Your task to perform on an android device: What's the news in Trinidad and Tobago? Image 0: 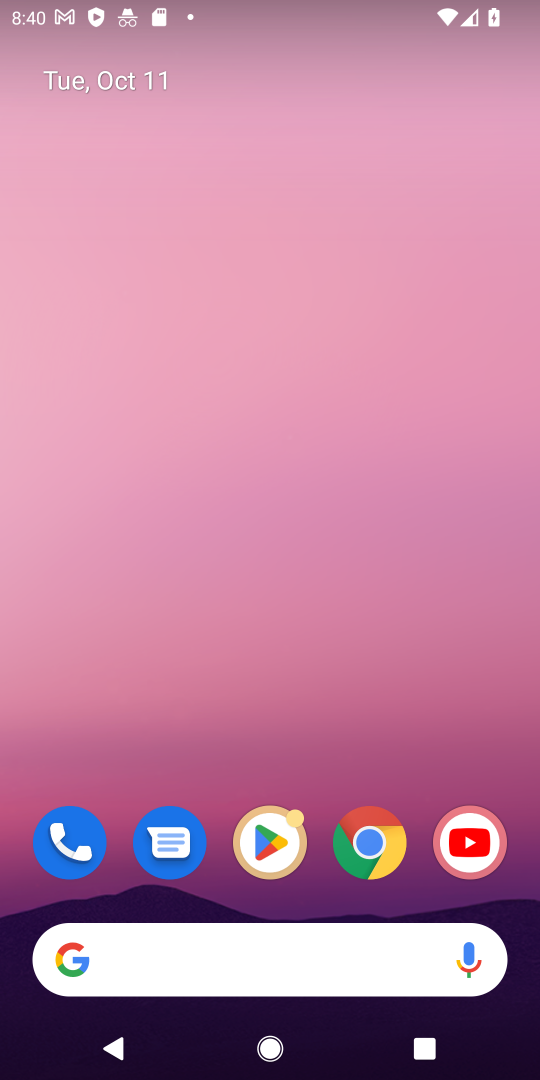
Step 0: drag from (210, 651) to (222, 94)
Your task to perform on an android device: What's the news in Trinidad and Tobago? Image 1: 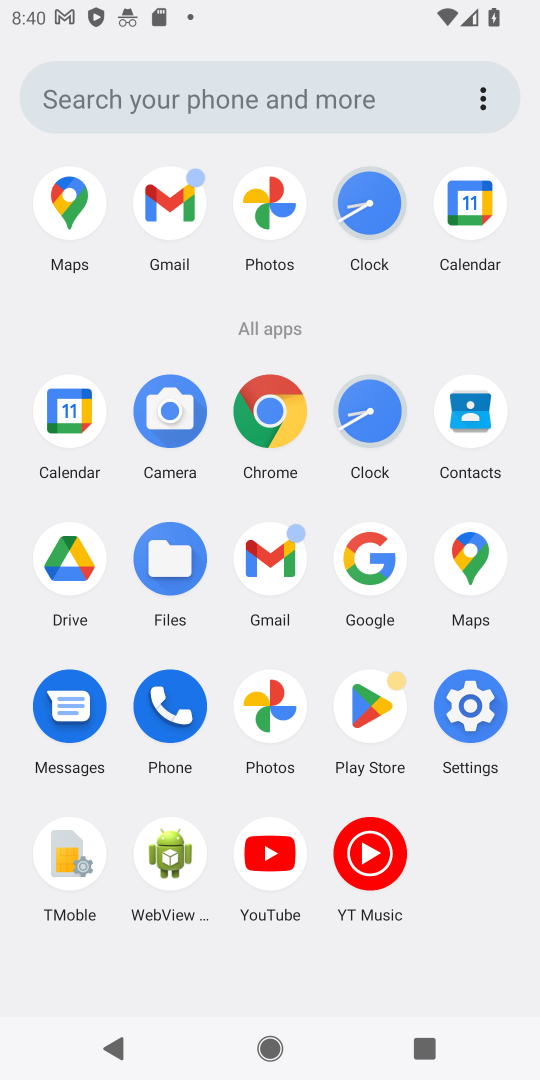
Step 1: click (366, 564)
Your task to perform on an android device: What's the news in Trinidad and Tobago? Image 2: 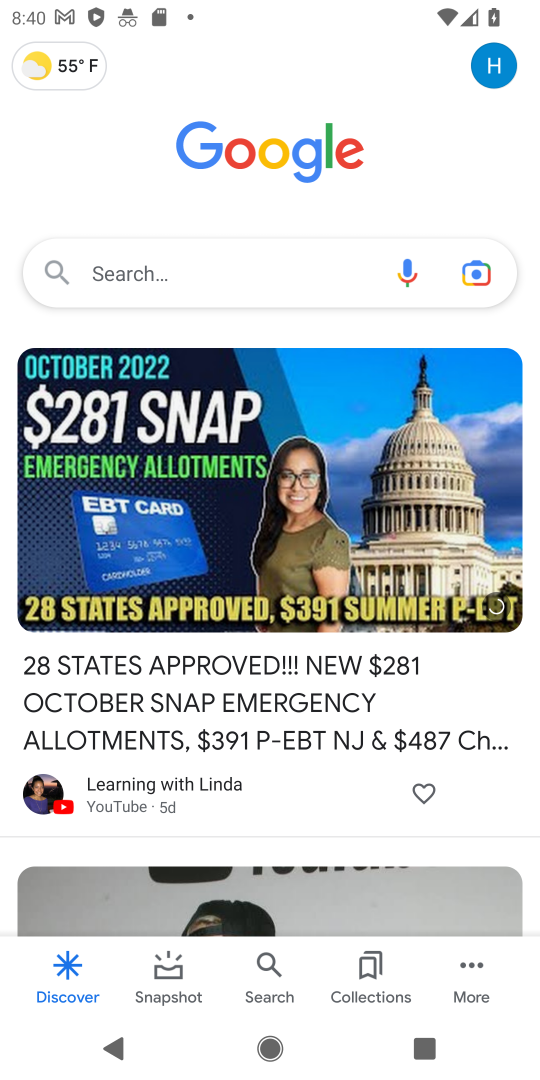
Step 2: click (282, 287)
Your task to perform on an android device: What's the news in Trinidad and Tobago? Image 3: 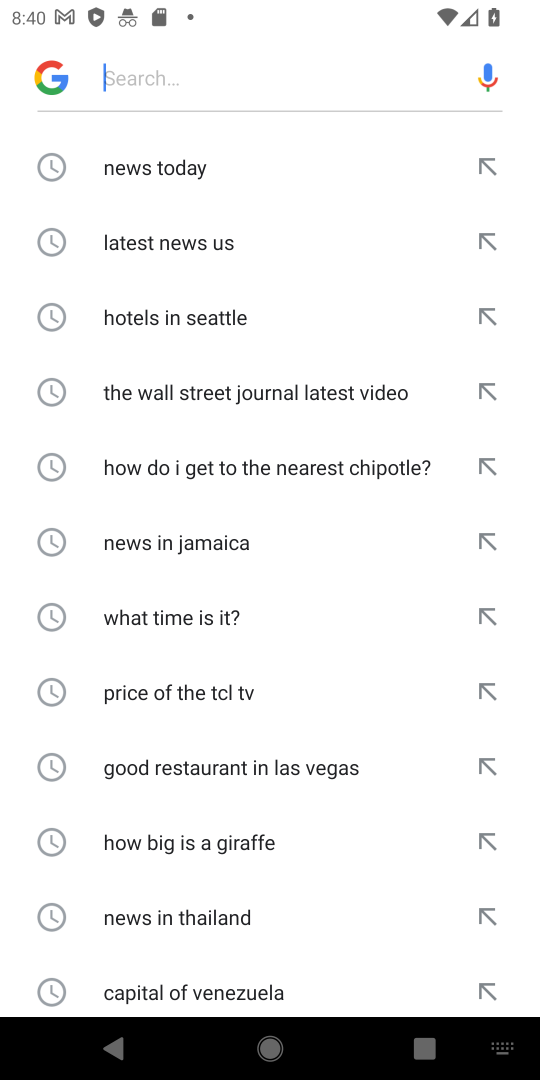
Step 3: type "What's the news in Trinidad and Tobago?"
Your task to perform on an android device: What's the news in Trinidad and Tobago? Image 4: 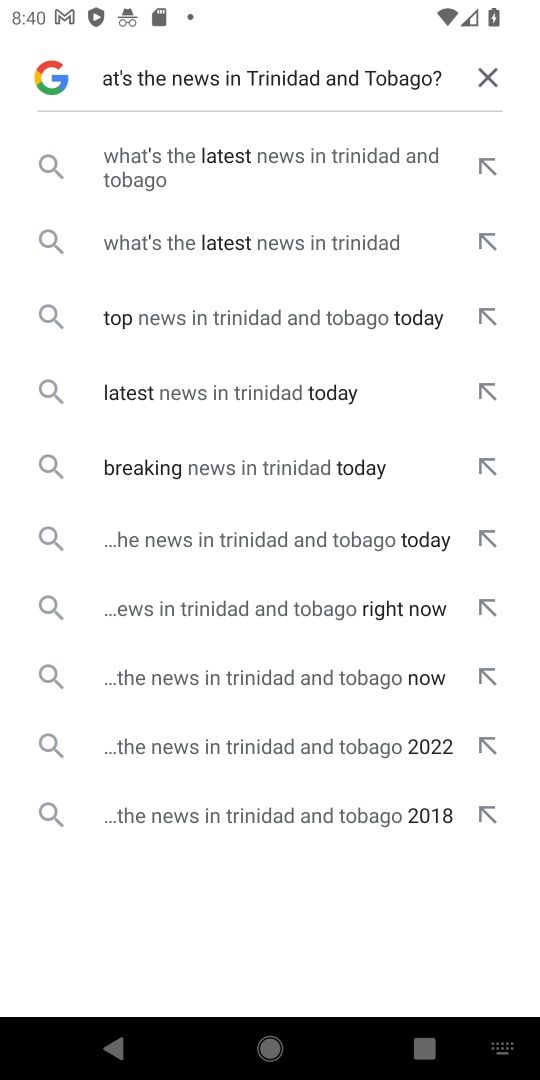
Step 4: click (212, 173)
Your task to perform on an android device: What's the news in Trinidad and Tobago? Image 5: 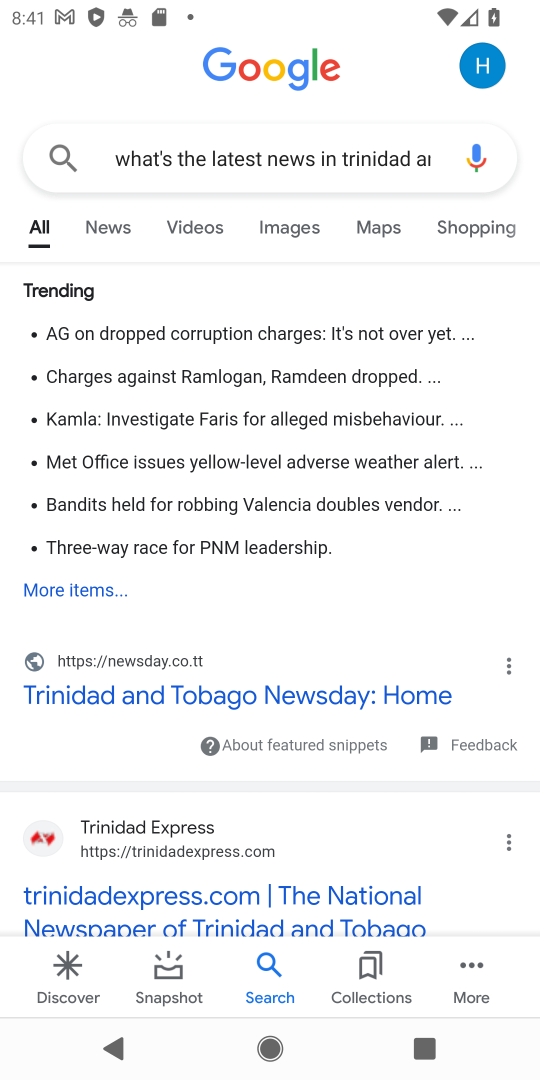
Step 5: click (104, 234)
Your task to perform on an android device: What's the news in Trinidad and Tobago? Image 6: 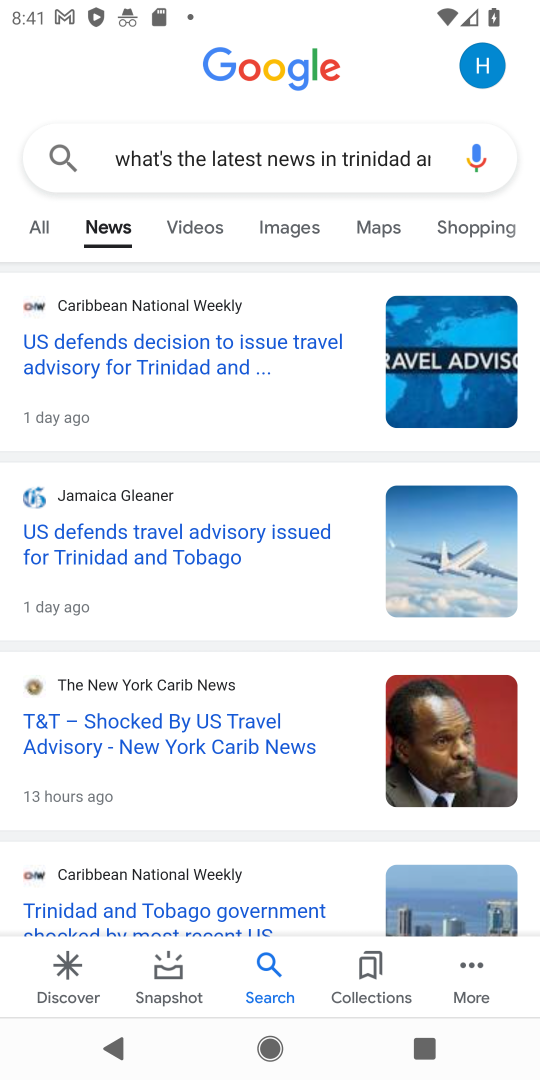
Step 6: task complete